Your task to perform on an android device: toggle translation in the chrome app Image 0: 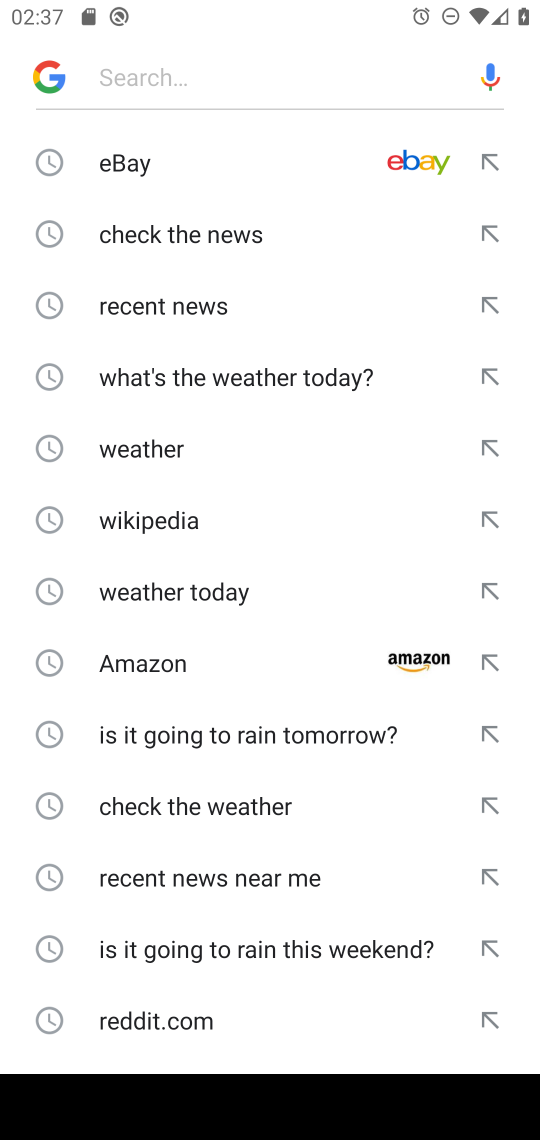
Step 0: press home button
Your task to perform on an android device: toggle translation in the chrome app Image 1: 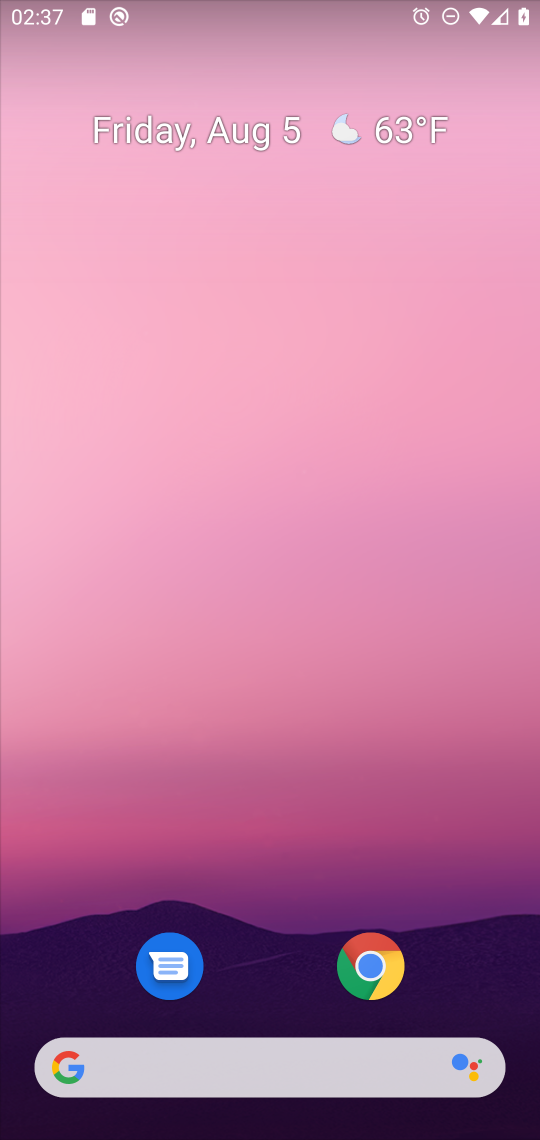
Step 1: click (370, 954)
Your task to perform on an android device: toggle translation in the chrome app Image 2: 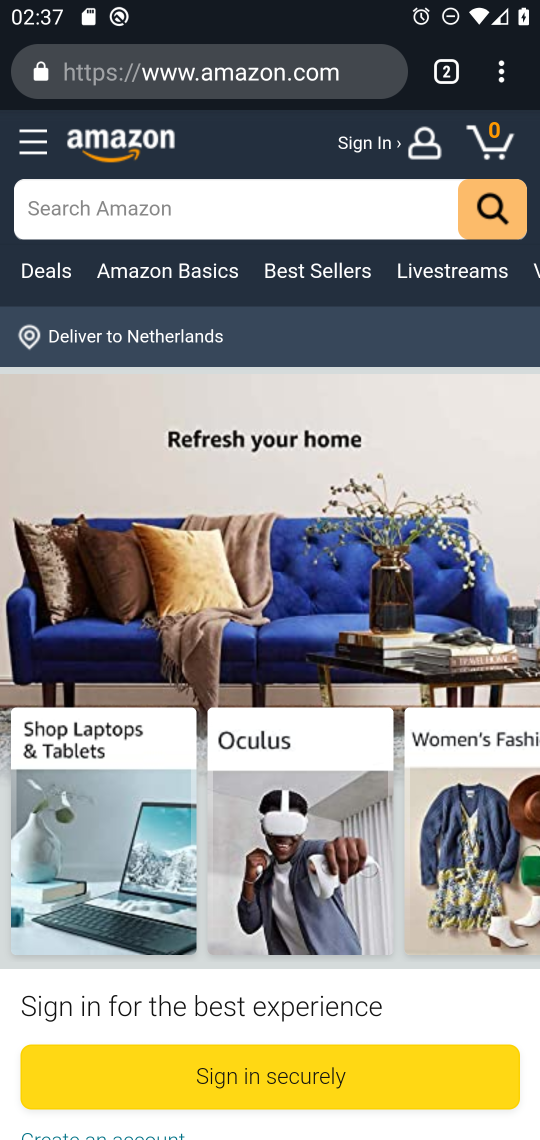
Step 2: click (499, 77)
Your task to perform on an android device: toggle translation in the chrome app Image 3: 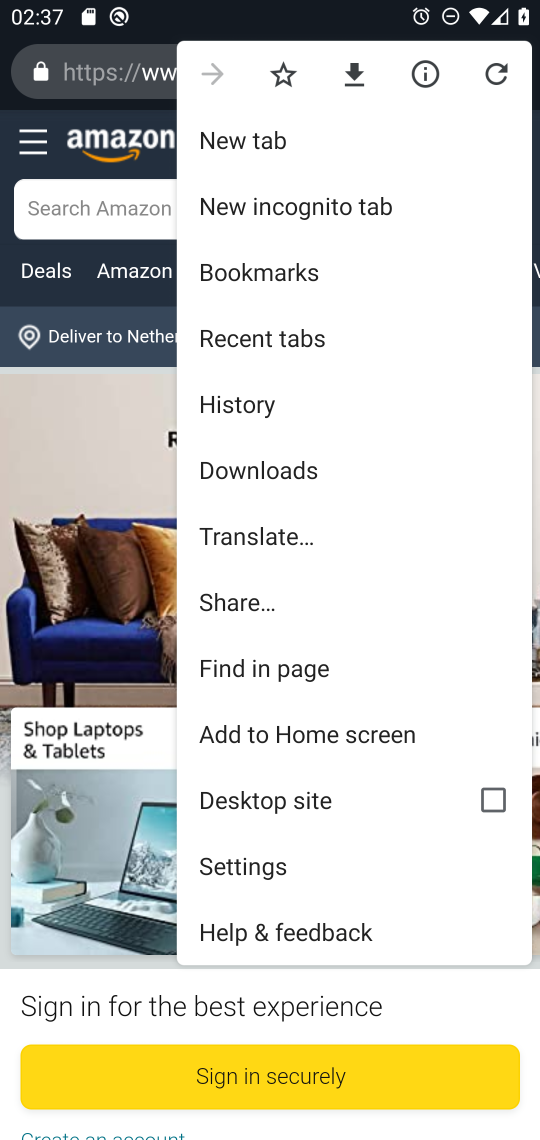
Step 3: click (270, 861)
Your task to perform on an android device: toggle translation in the chrome app Image 4: 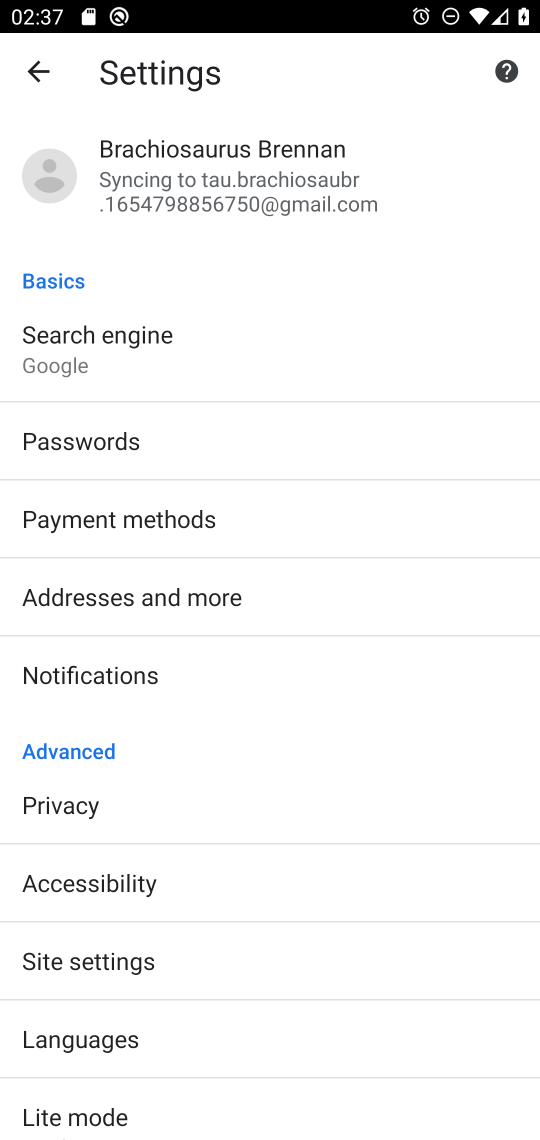
Step 4: click (168, 1041)
Your task to perform on an android device: toggle translation in the chrome app Image 5: 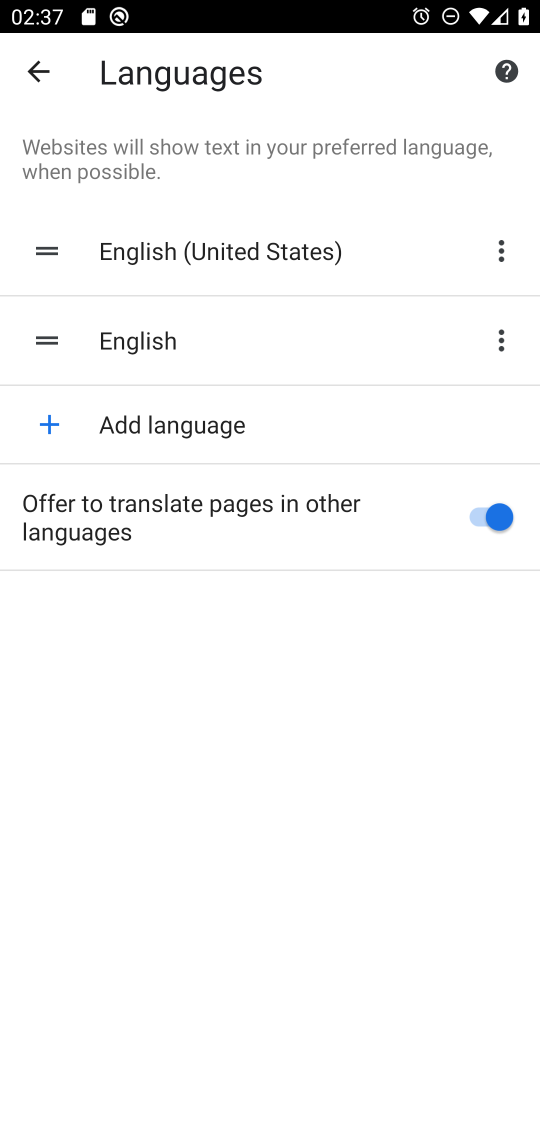
Step 5: click (486, 513)
Your task to perform on an android device: toggle translation in the chrome app Image 6: 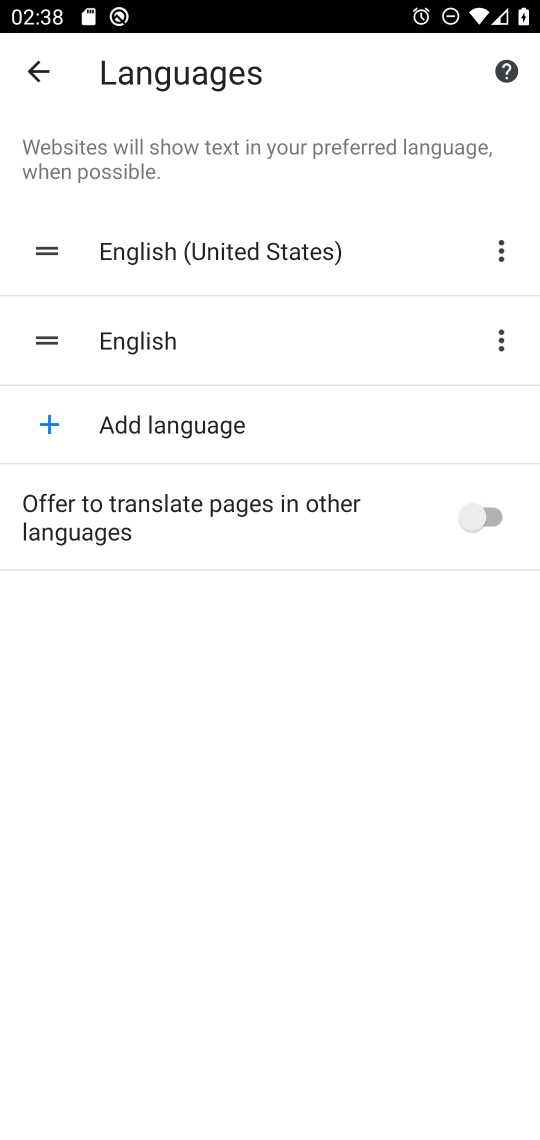
Step 6: task complete